Your task to perform on an android device: allow notifications from all sites in the chrome app Image 0: 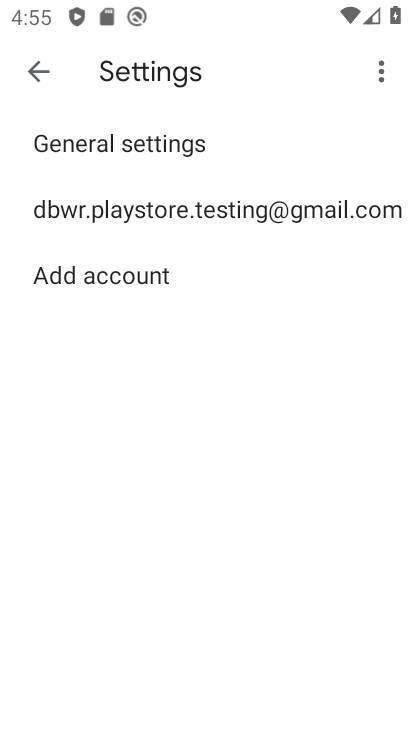
Step 0: press back button
Your task to perform on an android device: allow notifications from all sites in the chrome app Image 1: 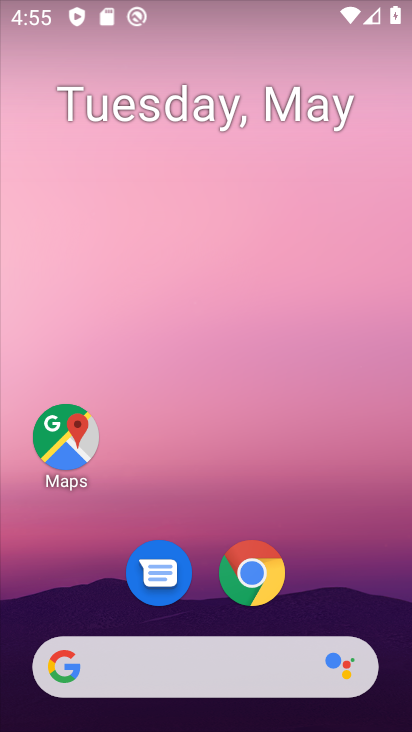
Step 1: drag from (204, 562) to (232, 86)
Your task to perform on an android device: allow notifications from all sites in the chrome app Image 2: 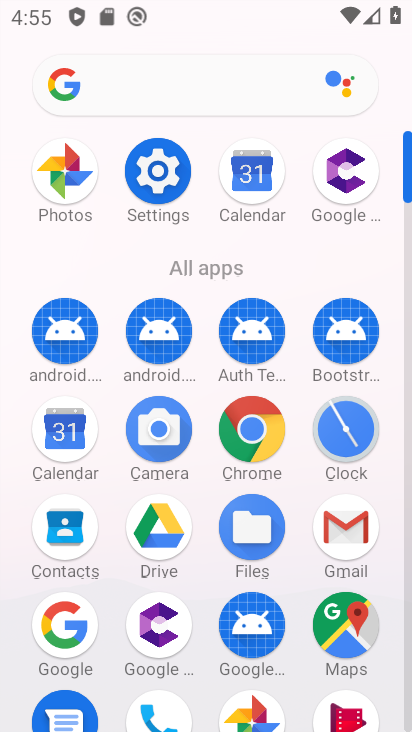
Step 2: drag from (232, 672) to (241, 118)
Your task to perform on an android device: allow notifications from all sites in the chrome app Image 3: 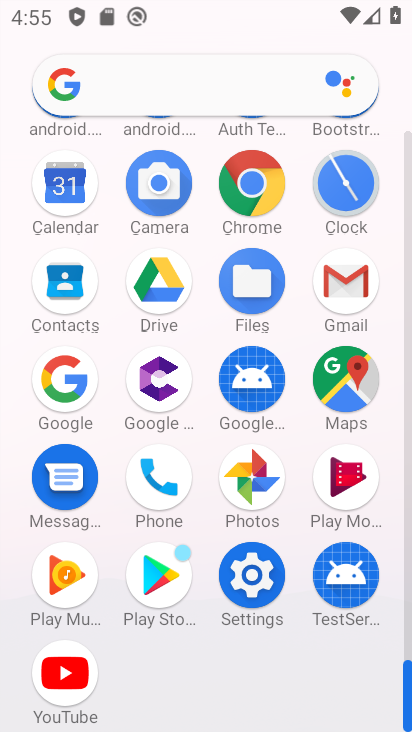
Step 3: click (257, 184)
Your task to perform on an android device: allow notifications from all sites in the chrome app Image 4: 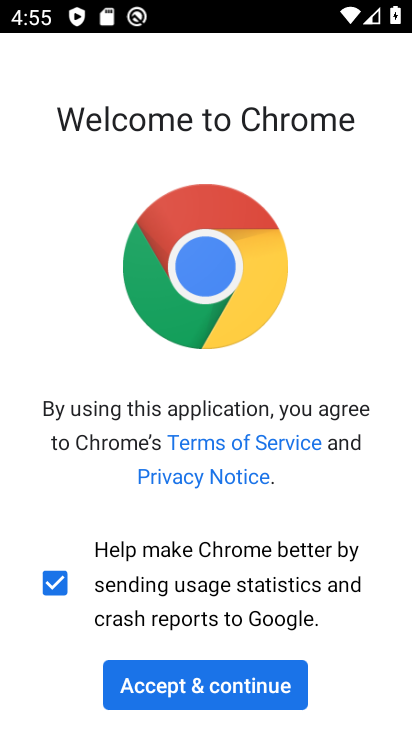
Step 4: click (219, 683)
Your task to perform on an android device: allow notifications from all sites in the chrome app Image 5: 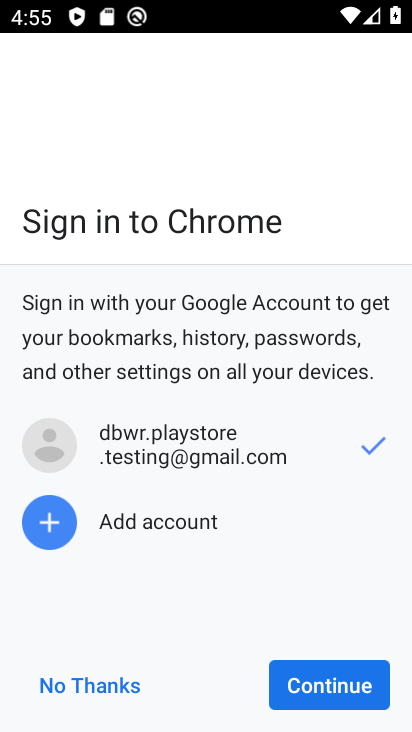
Step 5: click (335, 685)
Your task to perform on an android device: allow notifications from all sites in the chrome app Image 6: 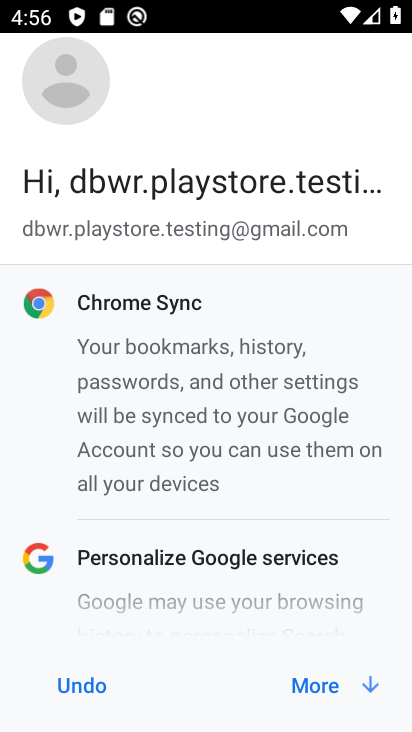
Step 6: click (335, 685)
Your task to perform on an android device: allow notifications from all sites in the chrome app Image 7: 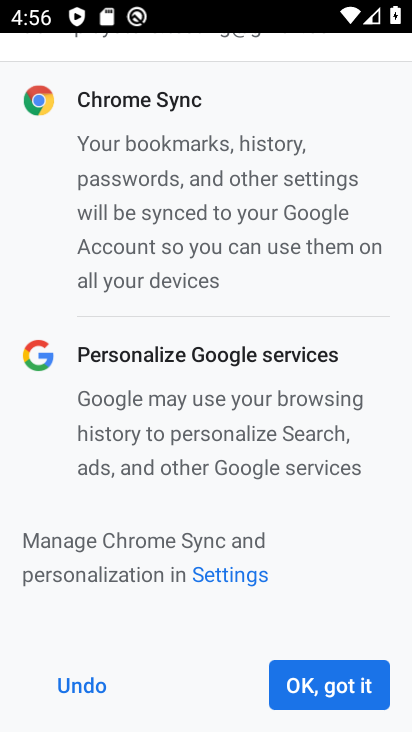
Step 7: click (296, 698)
Your task to perform on an android device: allow notifications from all sites in the chrome app Image 8: 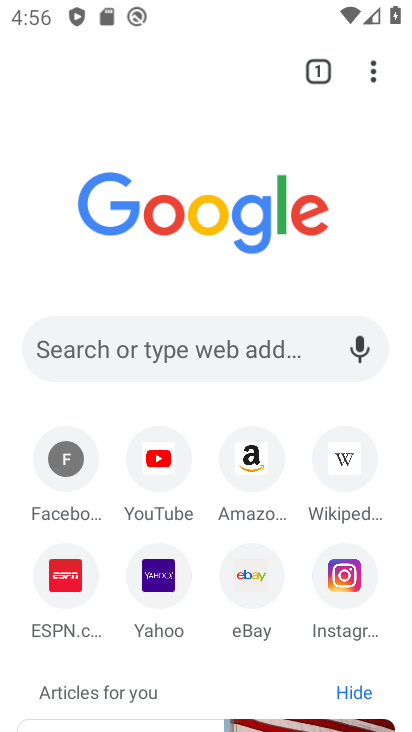
Step 8: drag from (376, 65) to (166, 610)
Your task to perform on an android device: allow notifications from all sites in the chrome app Image 9: 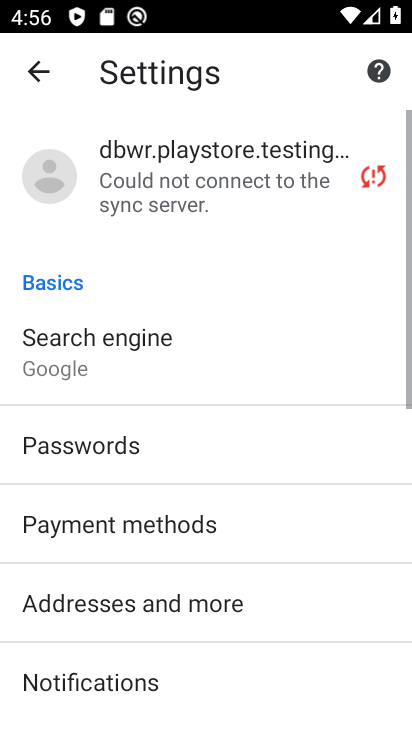
Step 9: drag from (141, 639) to (221, 159)
Your task to perform on an android device: allow notifications from all sites in the chrome app Image 10: 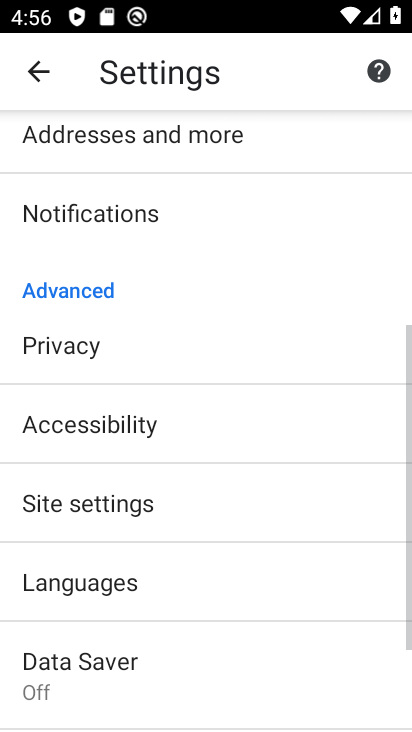
Step 10: click (81, 219)
Your task to perform on an android device: allow notifications from all sites in the chrome app Image 11: 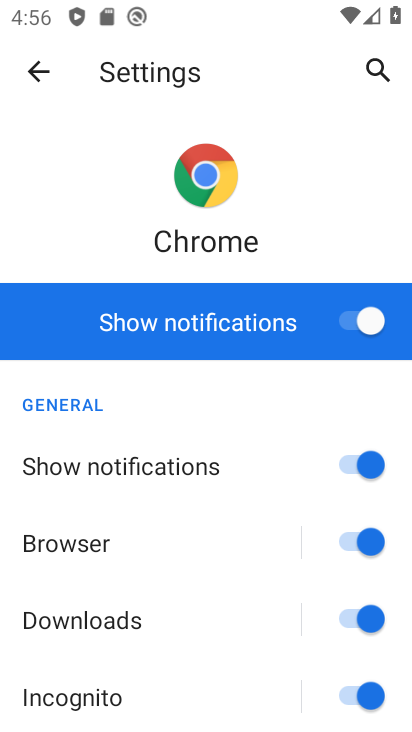
Step 11: task complete